Your task to perform on an android device: What's the weather today? Image 0: 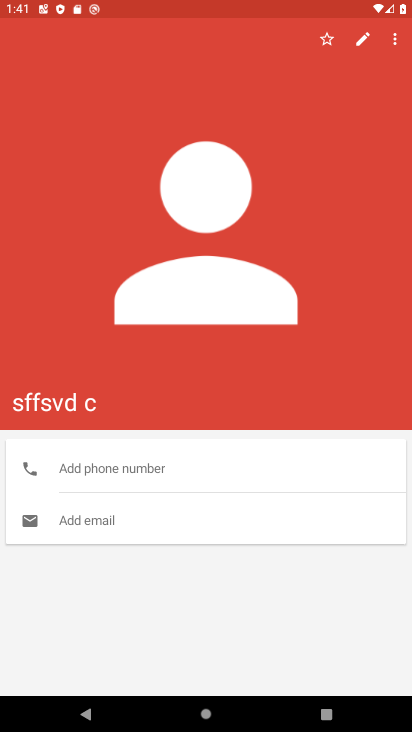
Step 0: press home button
Your task to perform on an android device: What's the weather today? Image 1: 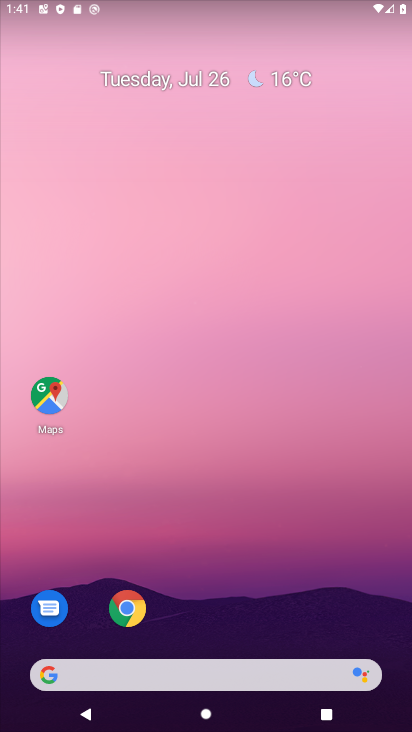
Step 1: click (254, 682)
Your task to perform on an android device: What's the weather today? Image 2: 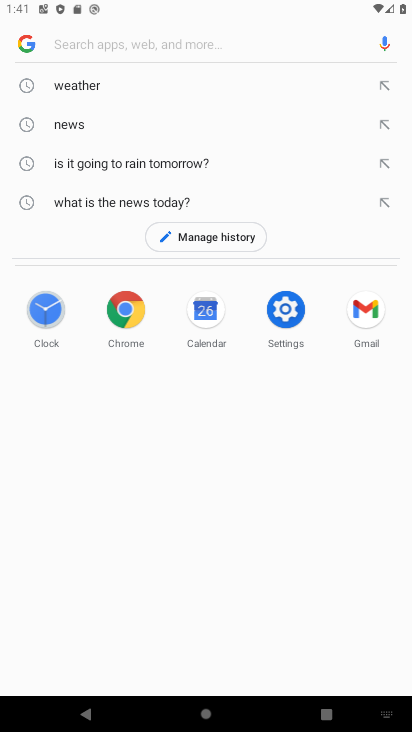
Step 2: click (88, 97)
Your task to perform on an android device: What's the weather today? Image 3: 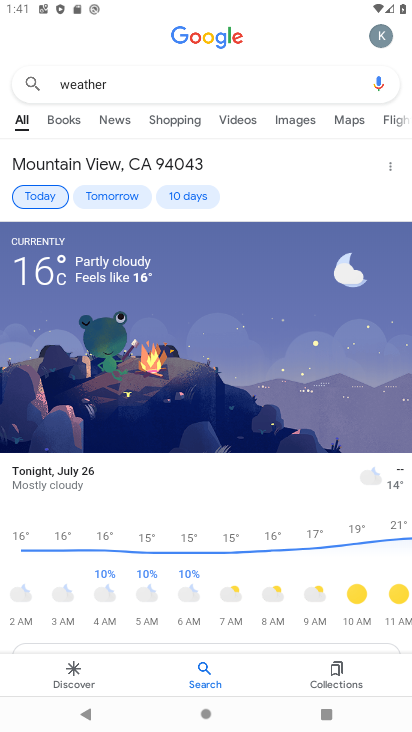
Step 3: task complete